Your task to perform on an android device: Search for flights from NYC to Chicago Image 0: 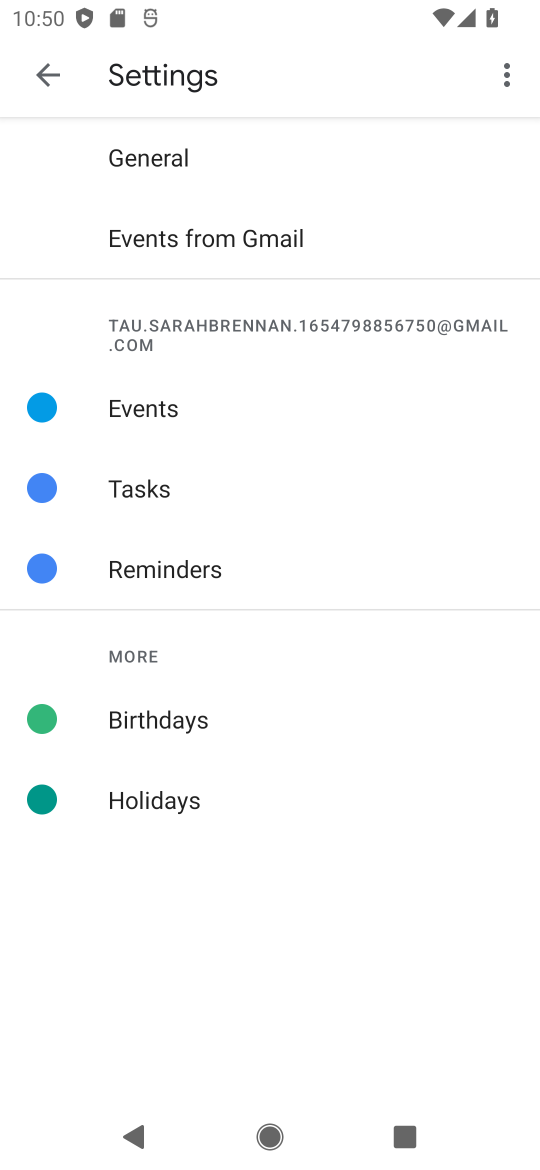
Step 0: press home button
Your task to perform on an android device: Search for flights from NYC to Chicago Image 1: 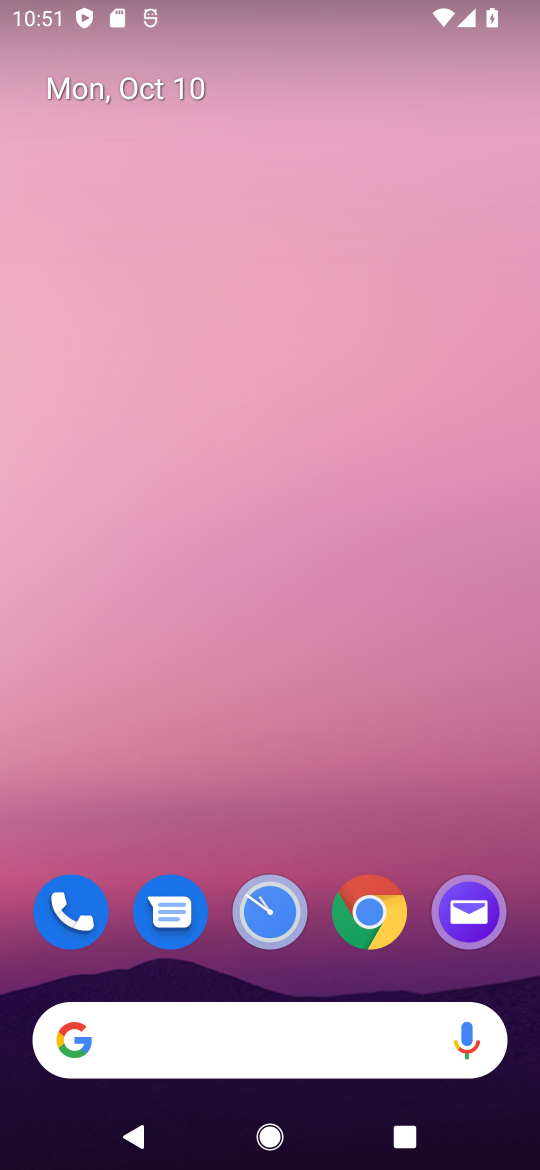
Step 1: click (78, 1048)
Your task to perform on an android device: Search for flights from NYC to Chicago Image 2: 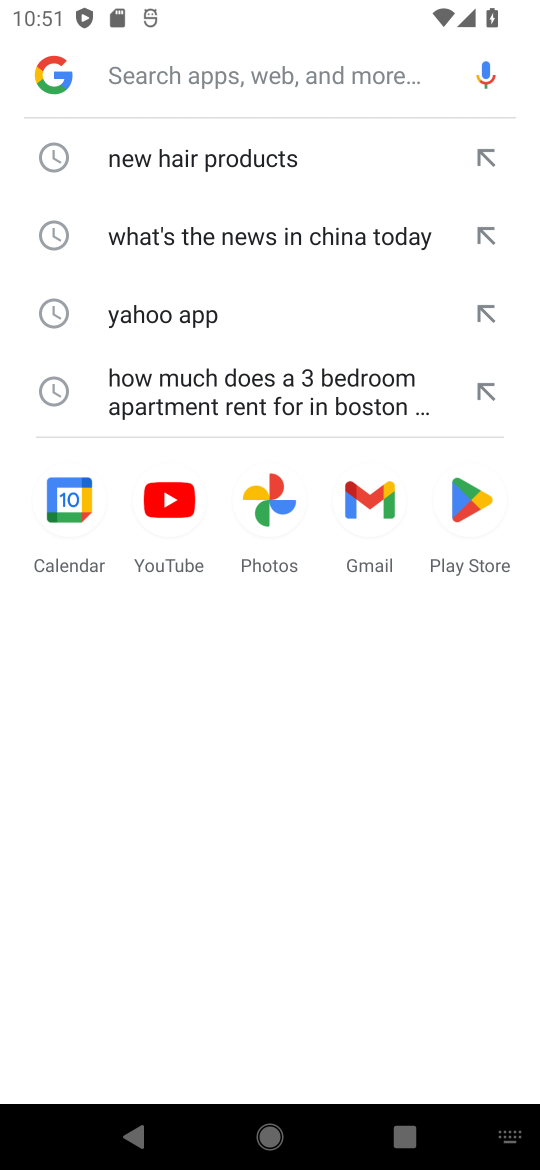
Step 2: click (178, 66)
Your task to perform on an android device: Search for flights from NYC to Chicago Image 3: 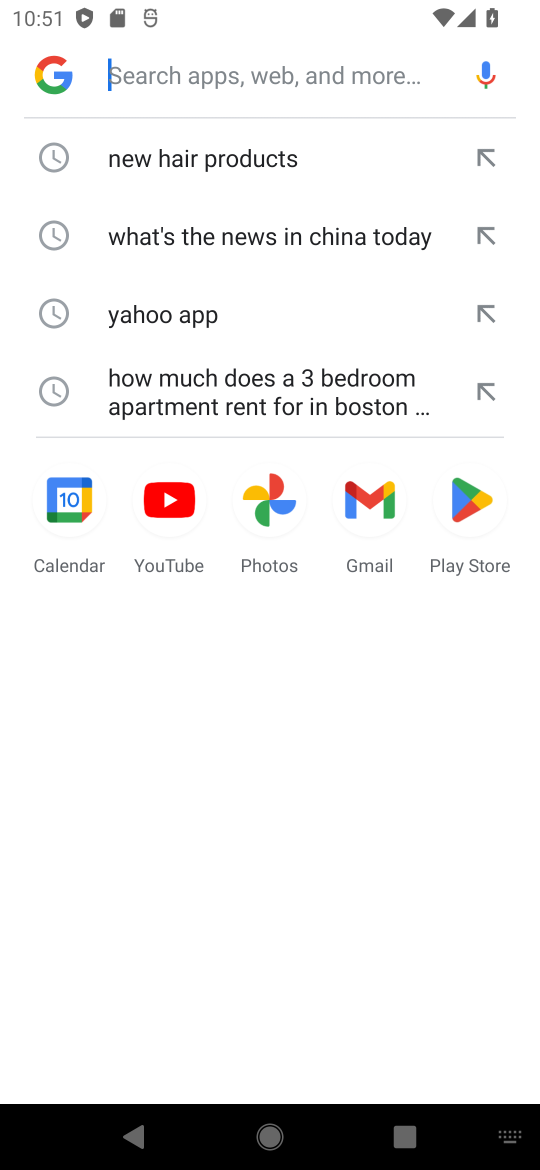
Step 3: type "flights from nyc to chicago"
Your task to perform on an android device: Search for flights from NYC to Chicago Image 4: 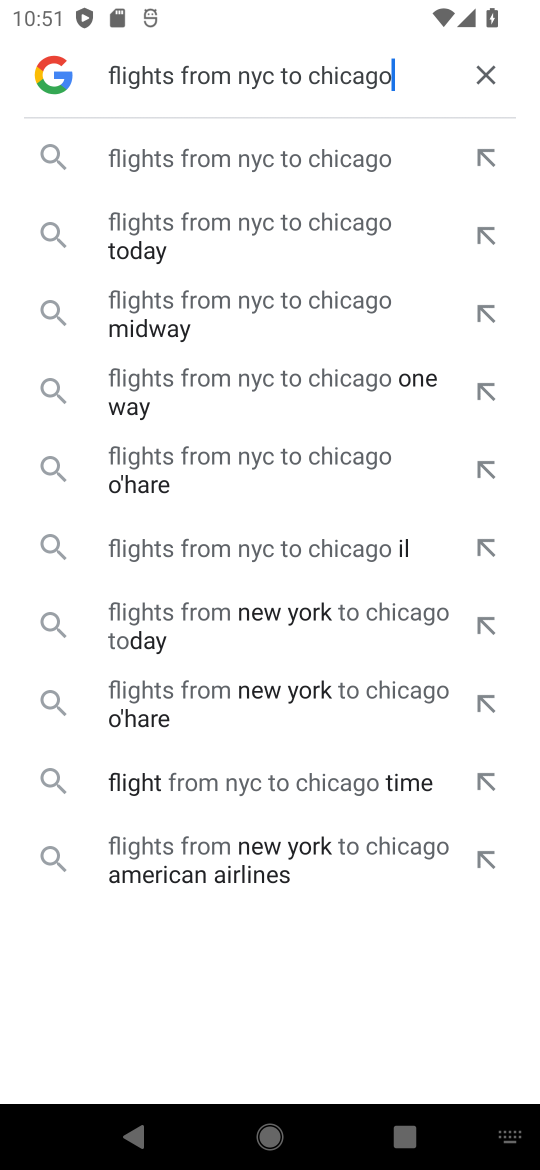
Step 4: click (310, 165)
Your task to perform on an android device: Search for flights from NYC to Chicago Image 5: 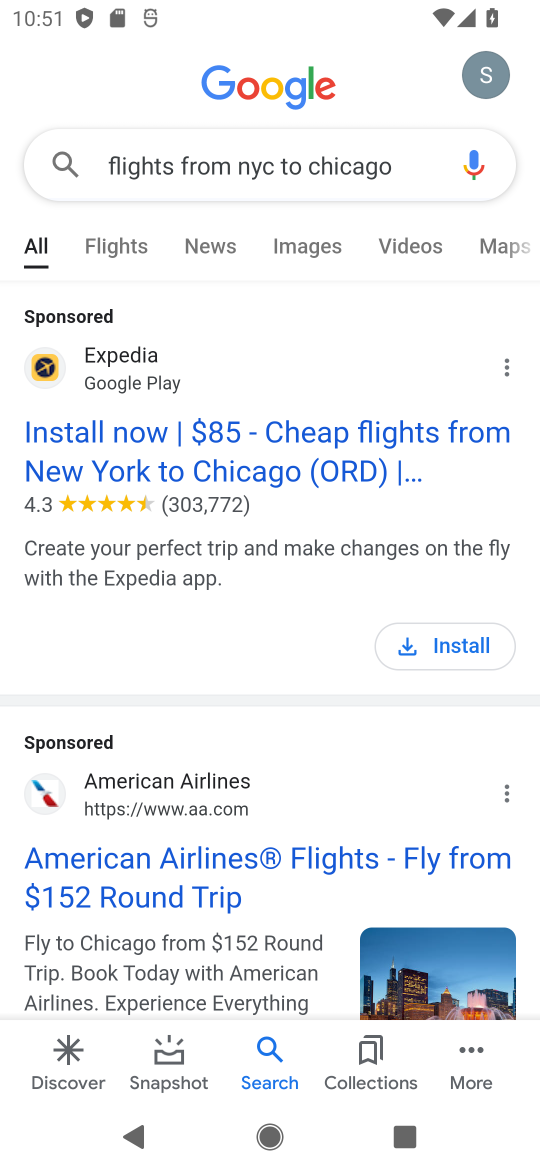
Step 5: task complete